Your task to perform on an android device: set default search engine in the chrome app Image 0: 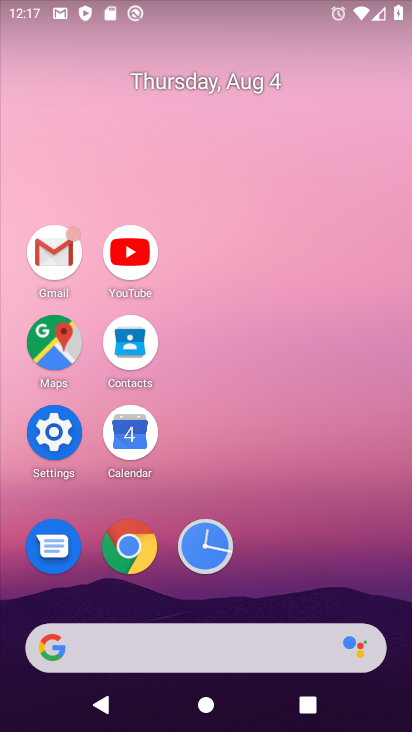
Step 0: click (126, 548)
Your task to perform on an android device: set default search engine in the chrome app Image 1: 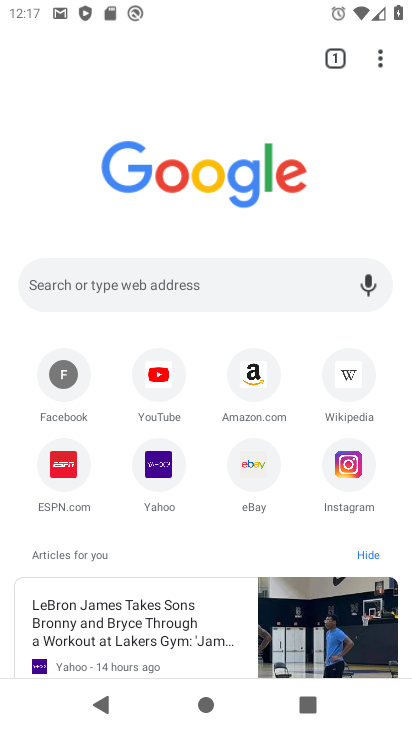
Step 1: click (385, 56)
Your task to perform on an android device: set default search engine in the chrome app Image 2: 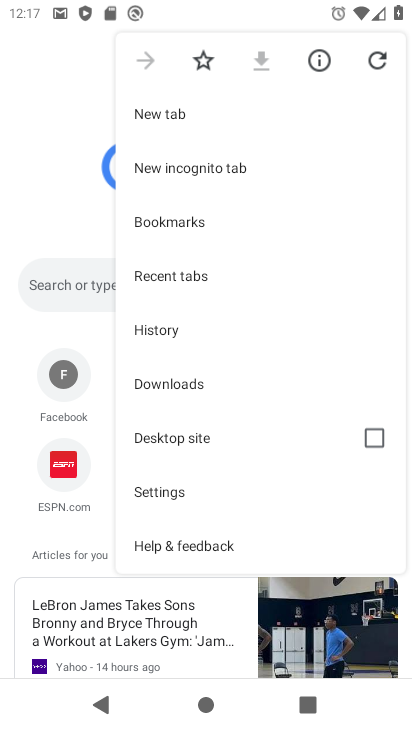
Step 2: click (158, 486)
Your task to perform on an android device: set default search engine in the chrome app Image 3: 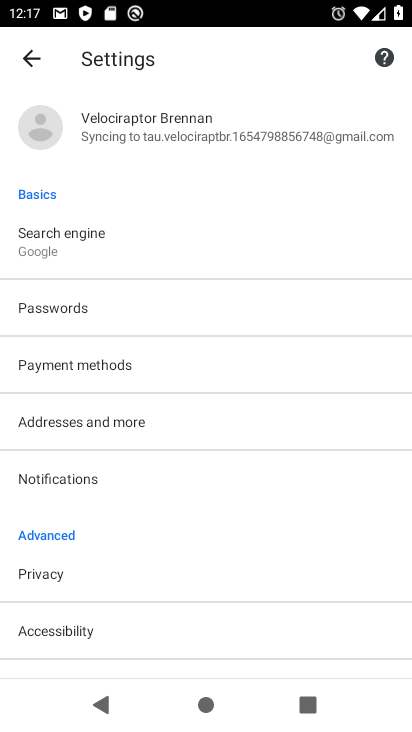
Step 3: click (50, 233)
Your task to perform on an android device: set default search engine in the chrome app Image 4: 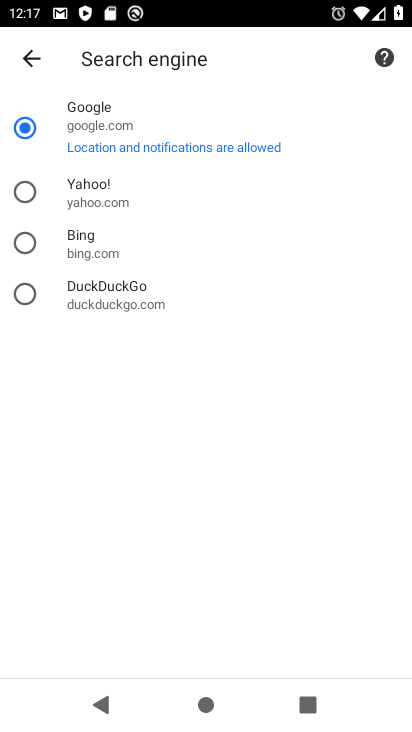
Step 4: task complete